Your task to perform on an android device: open a bookmark in the chrome app Image 0: 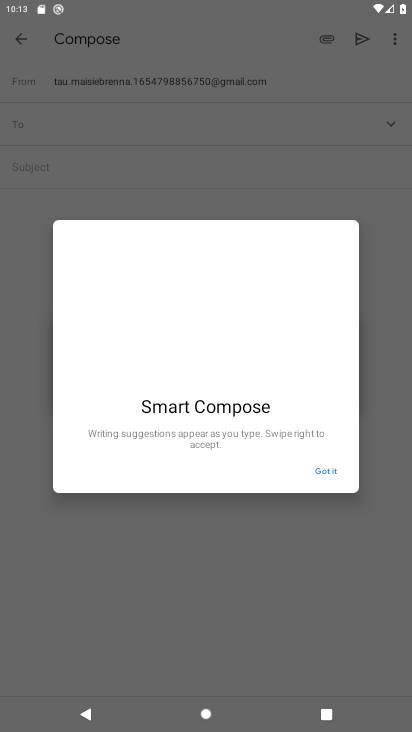
Step 0: press home button
Your task to perform on an android device: open a bookmark in the chrome app Image 1: 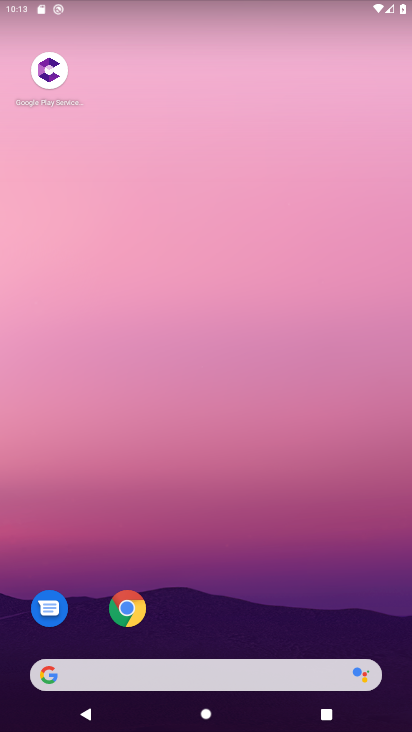
Step 1: click (118, 613)
Your task to perform on an android device: open a bookmark in the chrome app Image 2: 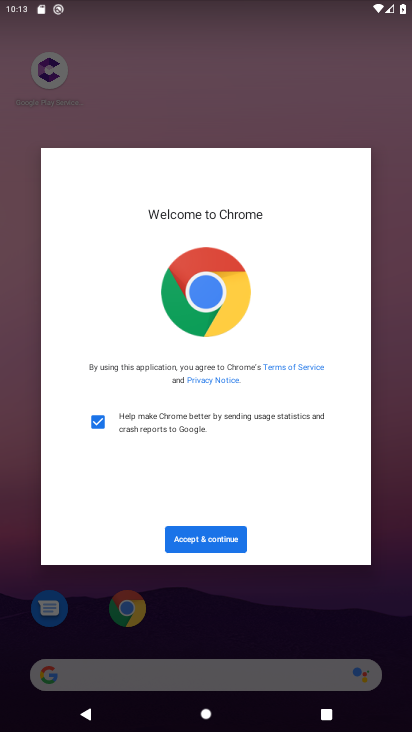
Step 2: click (202, 533)
Your task to perform on an android device: open a bookmark in the chrome app Image 3: 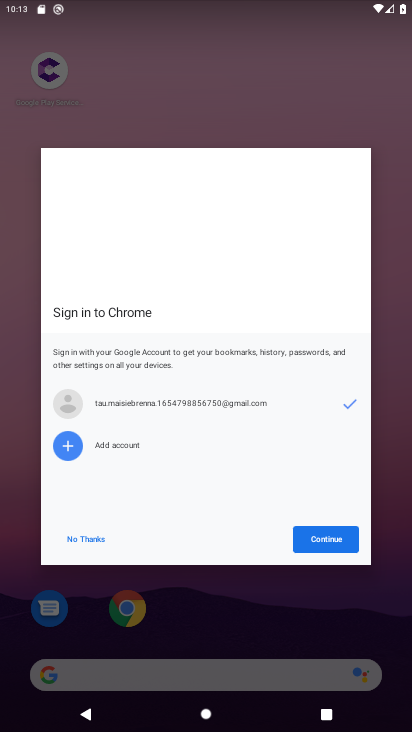
Step 3: click (335, 541)
Your task to perform on an android device: open a bookmark in the chrome app Image 4: 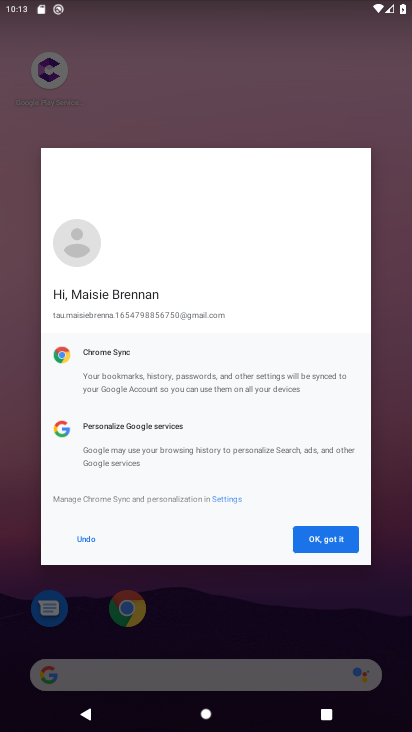
Step 4: click (320, 532)
Your task to perform on an android device: open a bookmark in the chrome app Image 5: 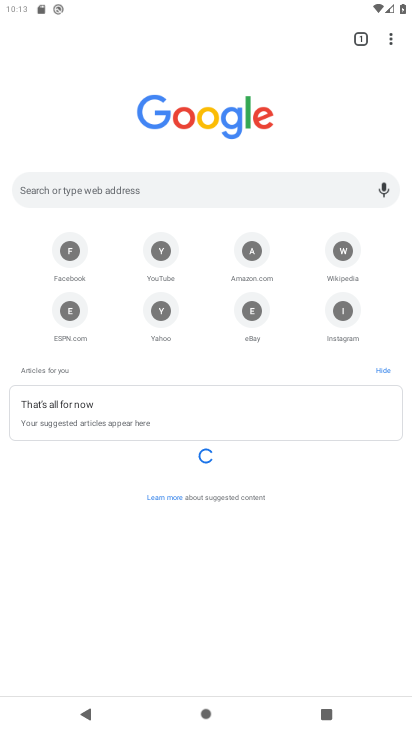
Step 5: click (388, 36)
Your task to perform on an android device: open a bookmark in the chrome app Image 6: 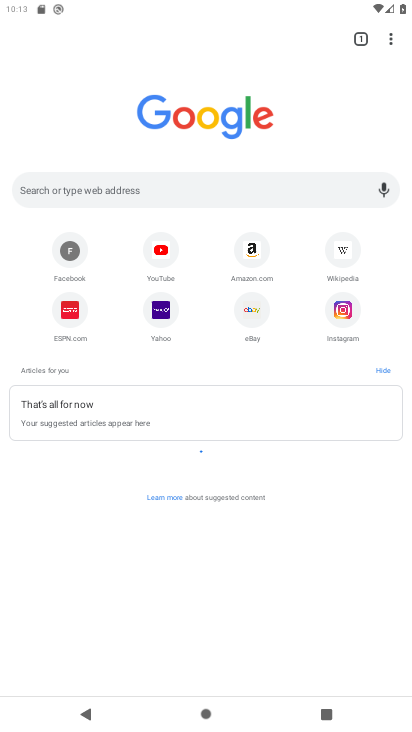
Step 6: task complete